Your task to perform on an android device: Search for Mexican restaurants on Maps Image 0: 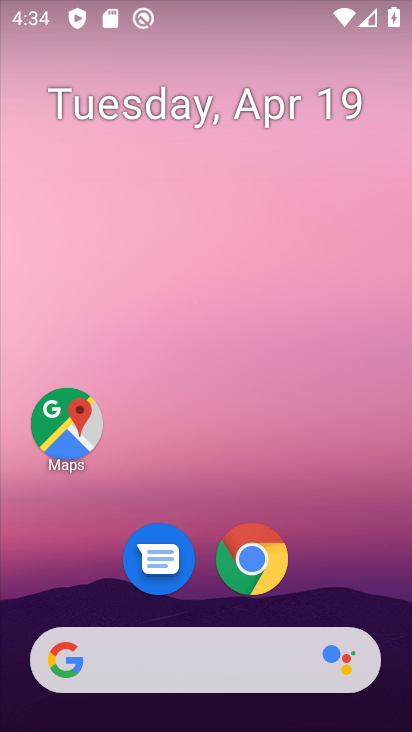
Step 0: drag from (361, 561) to (290, 157)
Your task to perform on an android device: Search for Mexican restaurants on Maps Image 1: 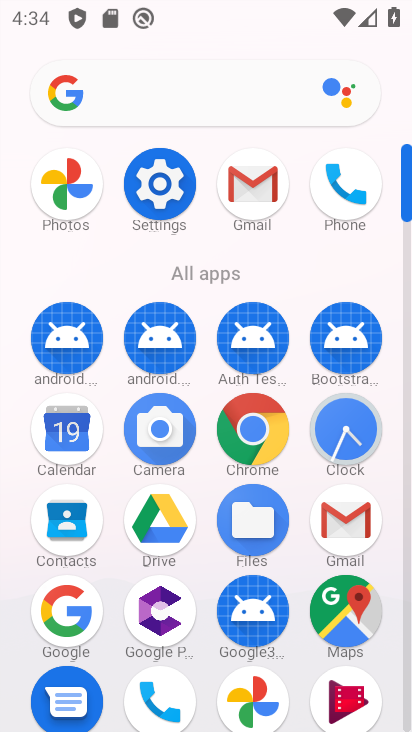
Step 1: click (358, 613)
Your task to perform on an android device: Search for Mexican restaurants on Maps Image 2: 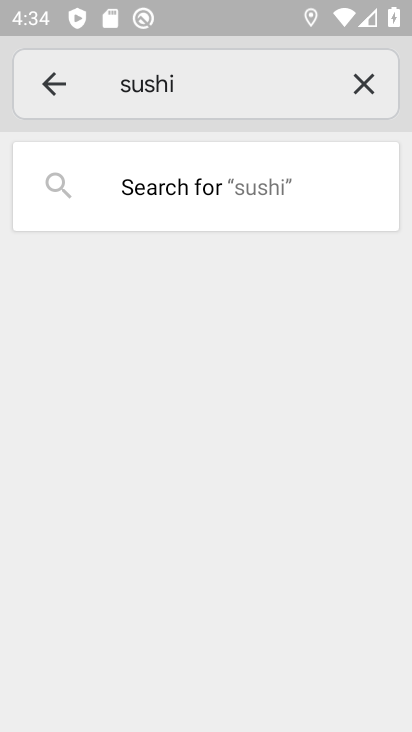
Step 2: click (357, 86)
Your task to perform on an android device: Search for Mexican restaurants on Maps Image 3: 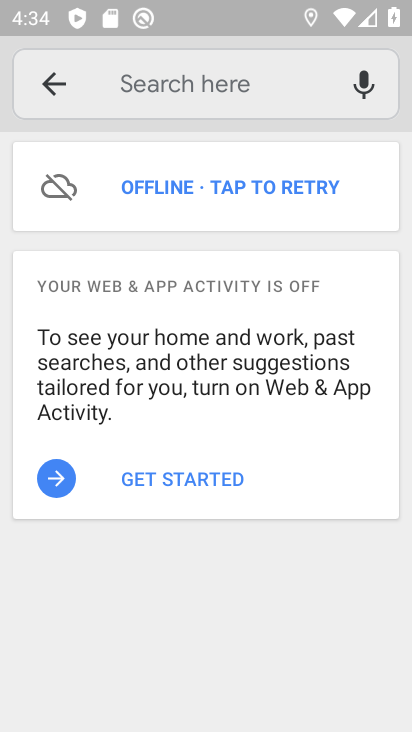
Step 3: click (239, 102)
Your task to perform on an android device: Search for Mexican restaurants on Maps Image 4: 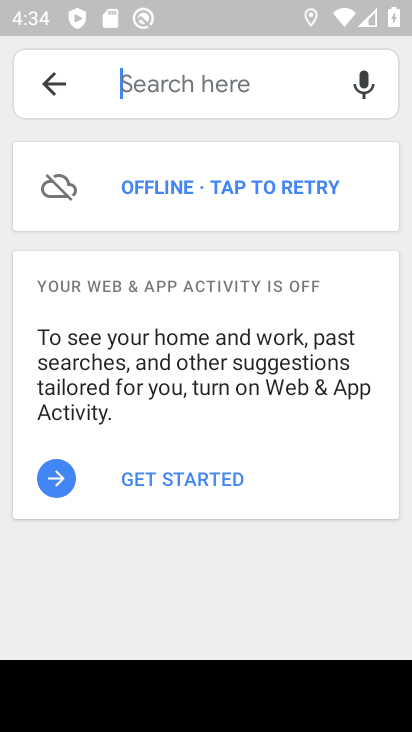
Step 4: click (269, 183)
Your task to perform on an android device: Search for Mexican restaurants on Maps Image 5: 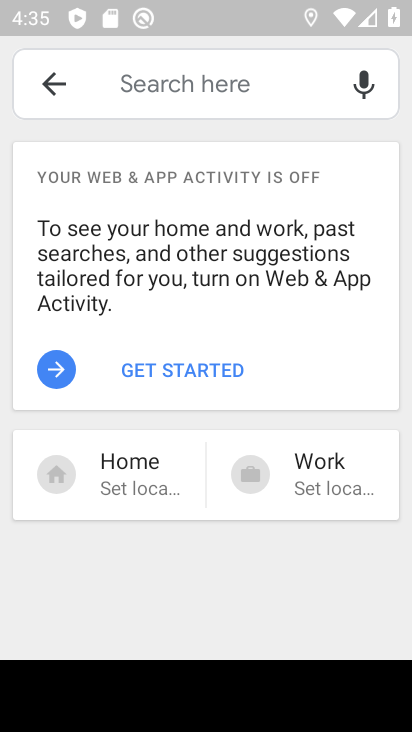
Step 5: type "mexican"
Your task to perform on an android device: Search for Mexican restaurants on Maps Image 6: 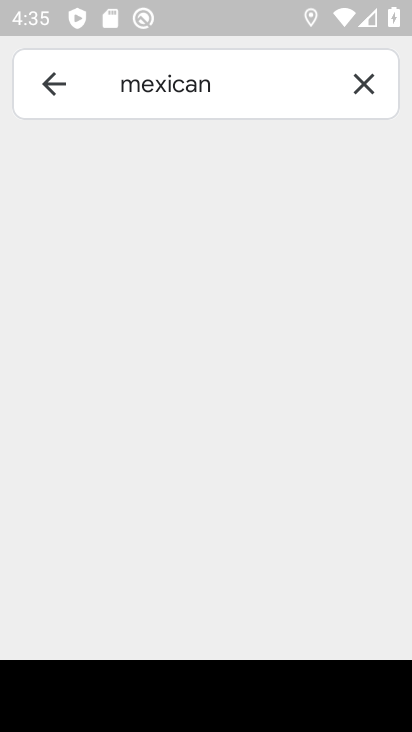
Step 6: task complete